Your task to perform on an android device: Open accessibility settings Image 0: 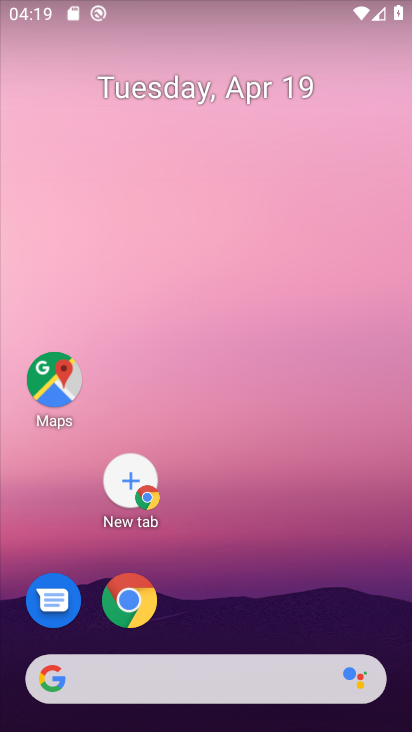
Step 0: drag from (298, 16) to (241, 721)
Your task to perform on an android device: Open accessibility settings Image 1: 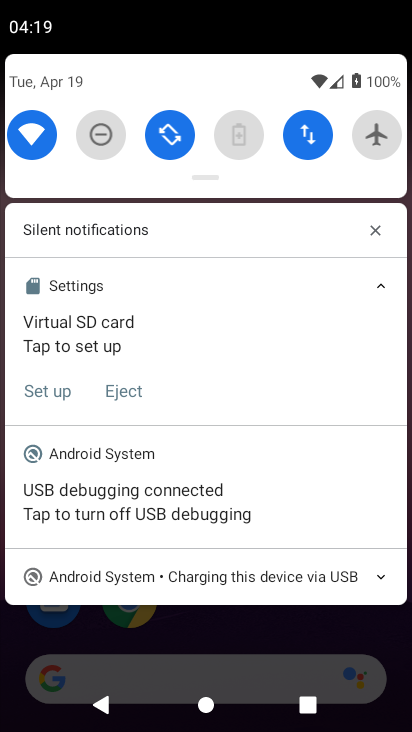
Step 1: drag from (252, 103) to (229, 507)
Your task to perform on an android device: Open accessibility settings Image 2: 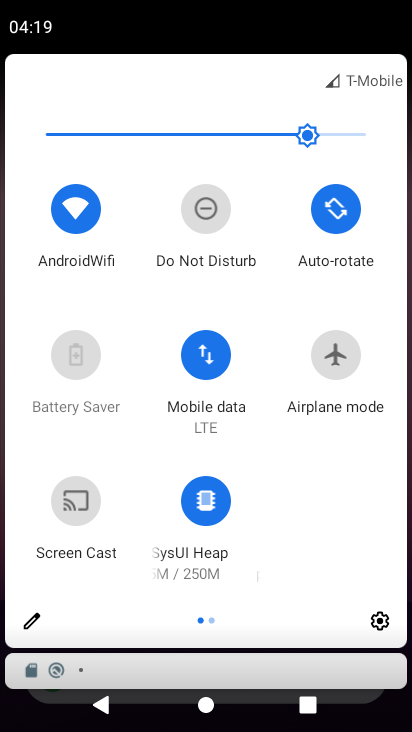
Step 2: click (379, 615)
Your task to perform on an android device: Open accessibility settings Image 3: 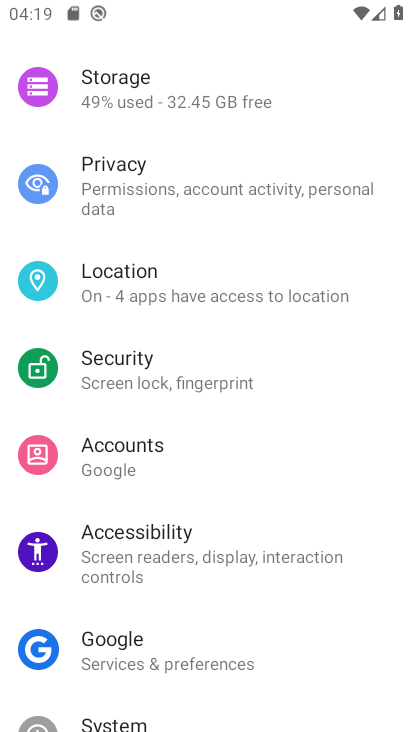
Step 3: click (119, 572)
Your task to perform on an android device: Open accessibility settings Image 4: 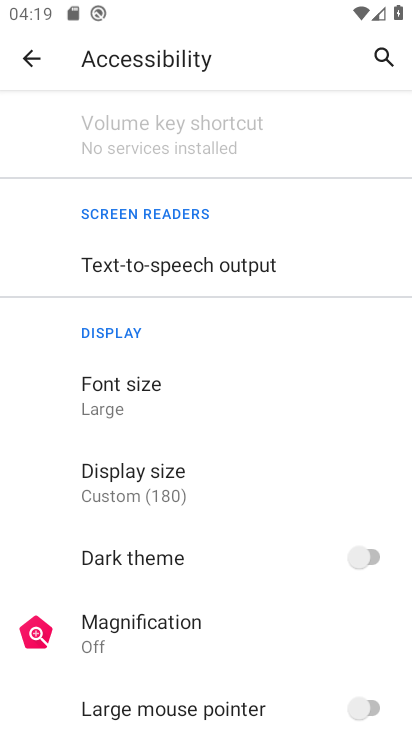
Step 4: task complete